Your task to perform on an android device: add a contact Image 0: 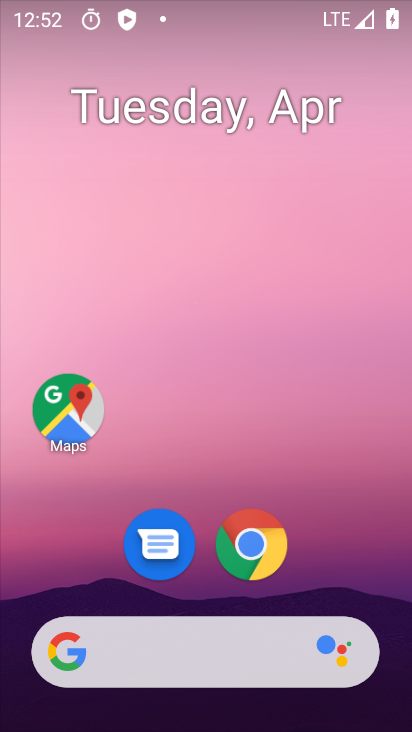
Step 0: drag from (405, 606) to (402, 0)
Your task to perform on an android device: add a contact Image 1: 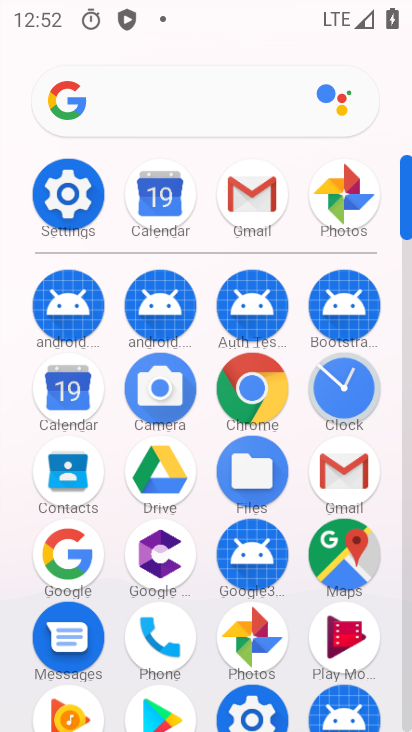
Step 1: click (73, 485)
Your task to perform on an android device: add a contact Image 2: 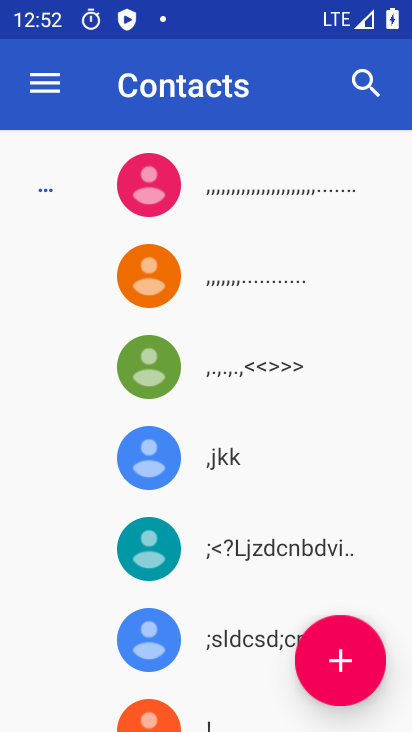
Step 2: click (338, 664)
Your task to perform on an android device: add a contact Image 3: 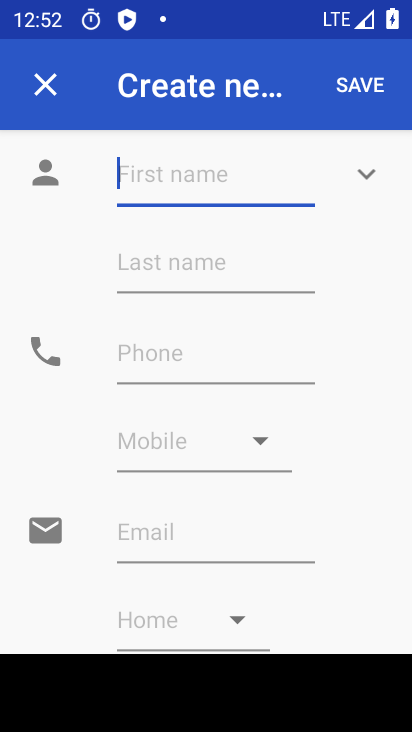
Step 3: click (188, 180)
Your task to perform on an android device: add a contact Image 4: 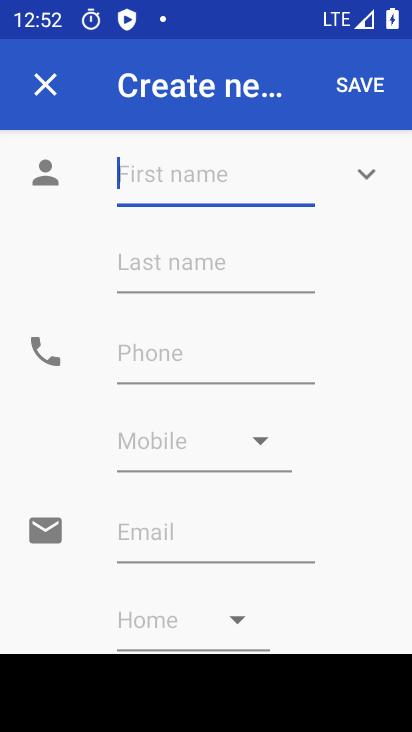
Step 4: type "gagan"
Your task to perform on an android device: add a contact Image 5: 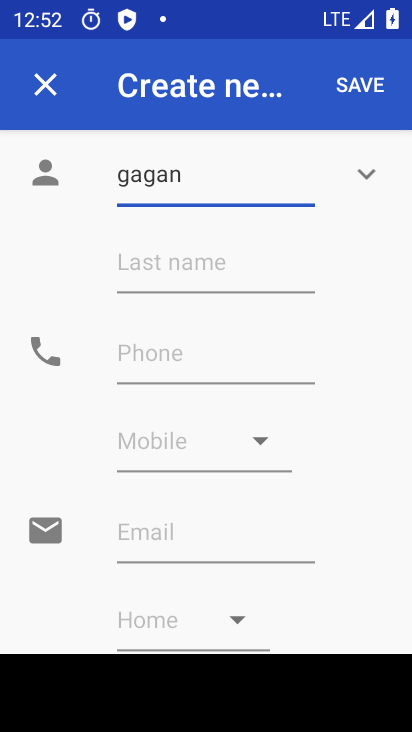
Step 5: click (136, 357)
Your task to perform on an android device: add a contact Image 6: 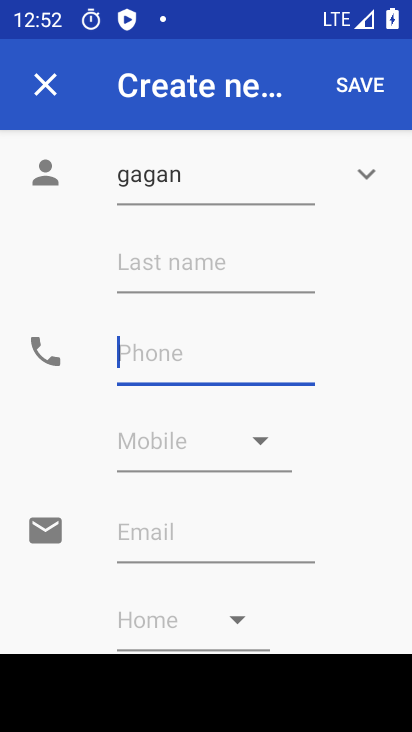
Step 6: type "654332212345"
Your task to perform on an android device: add a contact Image 7: 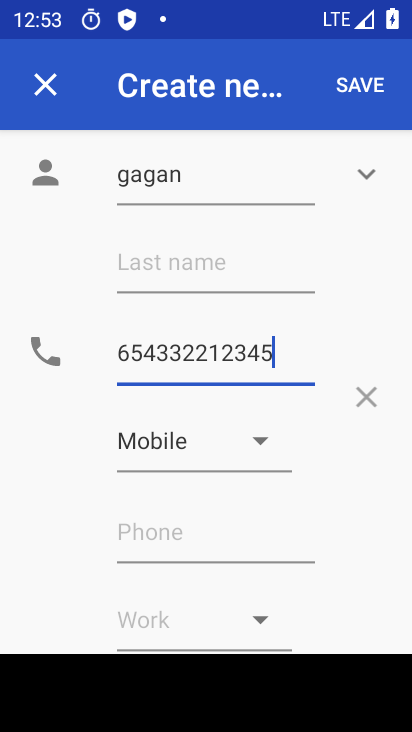
Step 7: click (350, 87)
Your task to perform on an android device: add a contact Image 8: 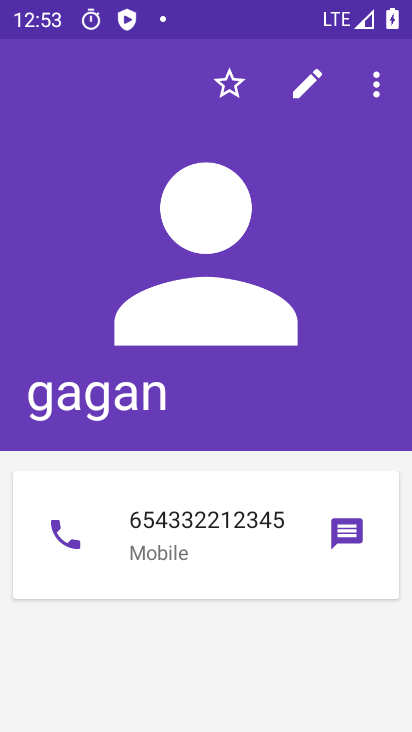
Step 8: task complete